Your task to perform on an android device: check battery use Image 0: 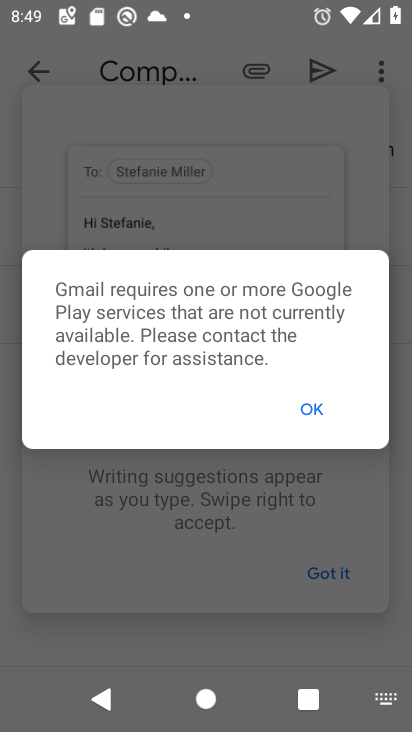
Step 0: press home button
Your task to perform on an android device: check battery use Image 1: 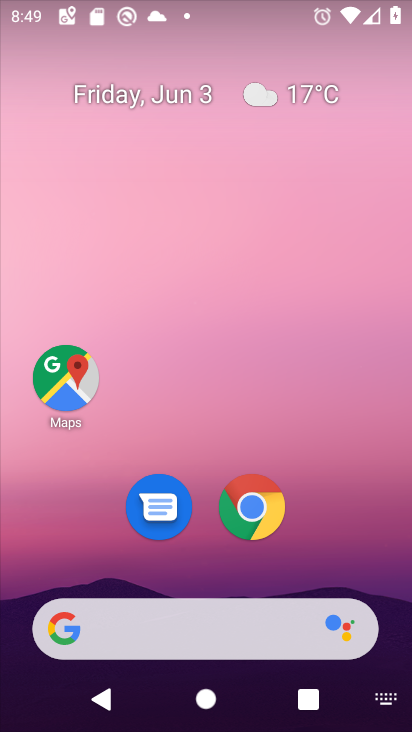
Step 1: drag from (345, 539) to (171, 0)
Your task to perform on an android device: check battery use Image 2: 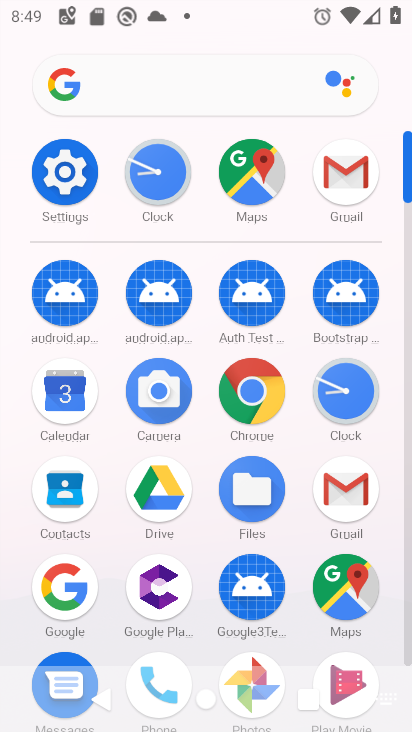
Step 2: click (45, 191)
Your task to perform on an android device: check battery use Image 3: 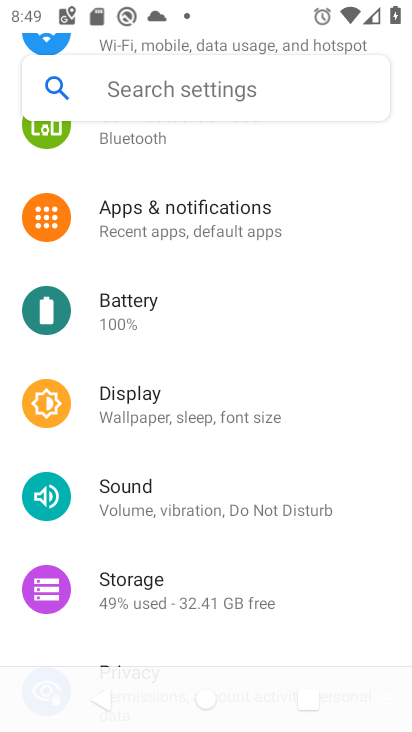
Step 3: click (228, 324)
Your task to perform on an android device: check battery use Image 4: 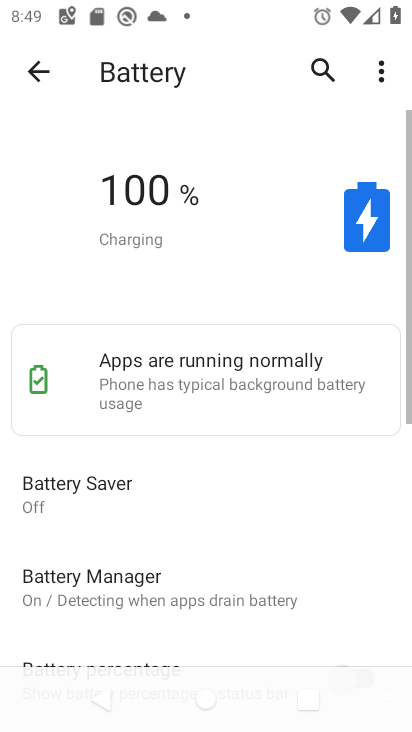
Step 4: click (377, 72)
Your task to perform on an android device: check battery use Image 5: 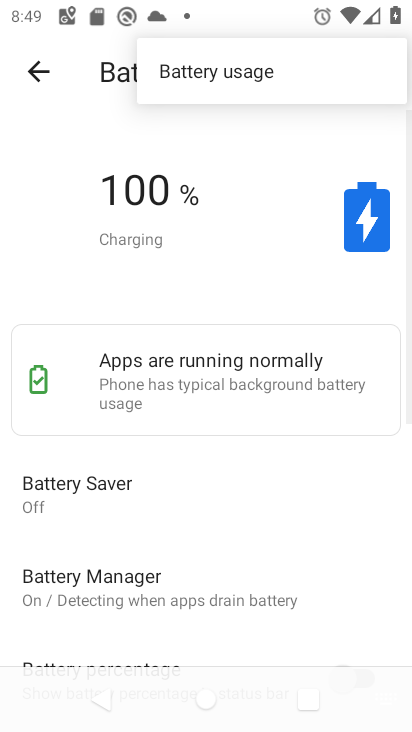
Step 5: click (244, 74)
Your task to perform on an android device: check battery use Image 6: 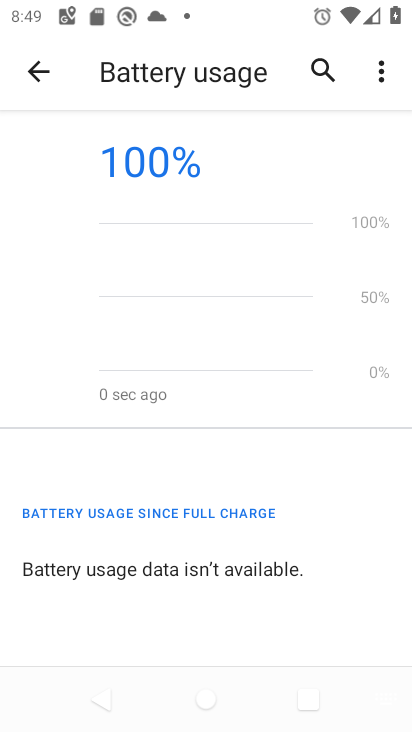
Step 6: task complete